Your task to perform on an android device: What's the weather going to be this weekend? Image 0: 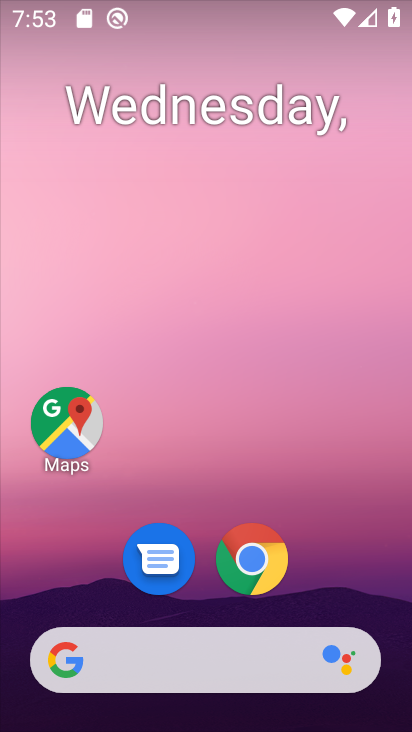
Step 0: drag from (377, 555) to (378, 174)
Your task to perform on an android device: What's the weather going to be this weekend? Image 1: 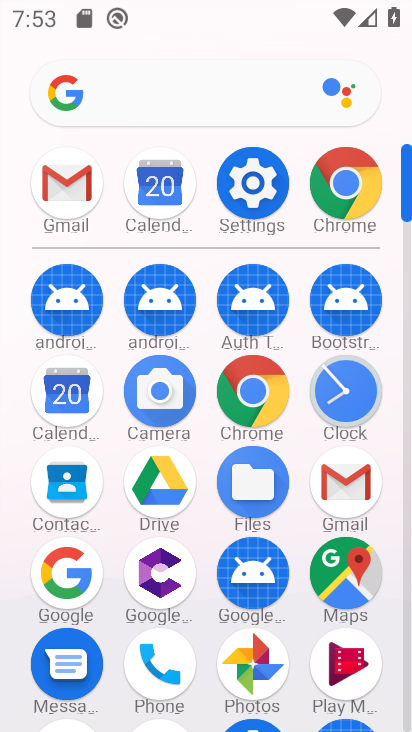
Step 1: click (270, 400)
Your task to perform on an android device: What's the weather going to be this weekend? Image 2: 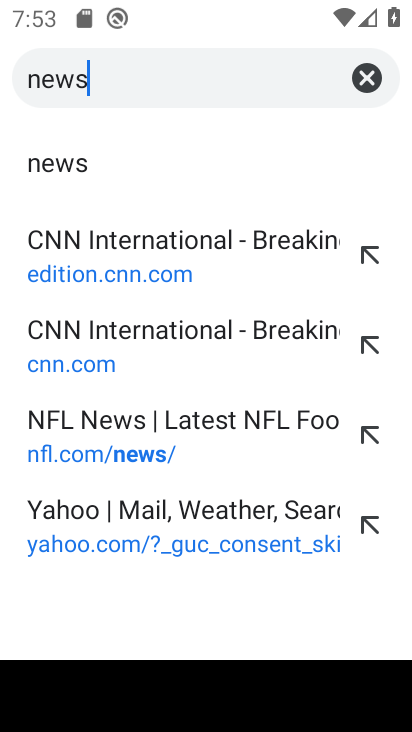
Step 2: click (367, 71)
Your task to perform on an android device: What's the weather going to be this weekend? Image 3: 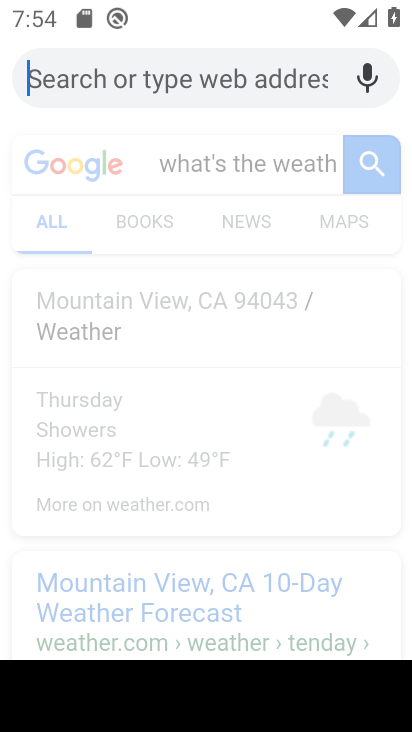
Step 3: type "what's the weather gong to be this weekend"
Your task to perform on an android device: What's the weather going to be this weekend? Image 4: 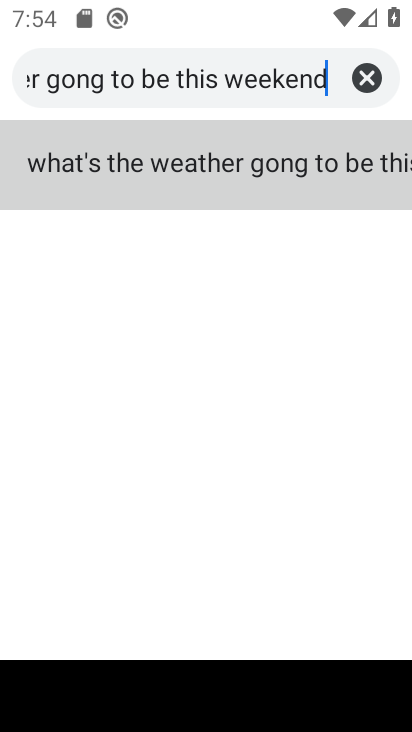
Step 4: click (232, 177)
Your task to perform on an android device: What's the weather going to be this weekend? Image 5: 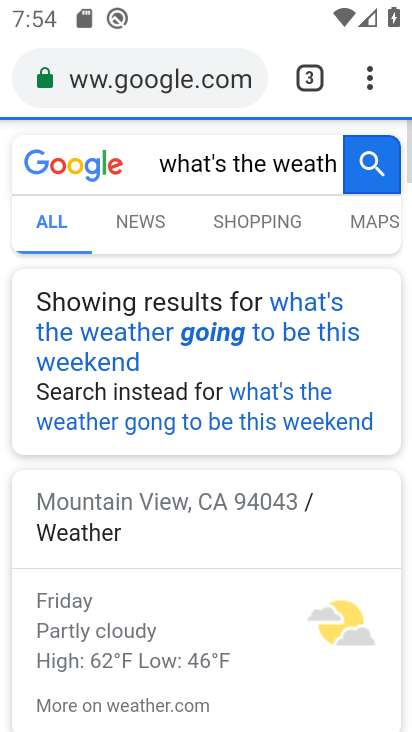
Step 5: click (235, 162)
Your task to perform on an android device: What's the weather going to be this weekend? Image 6: 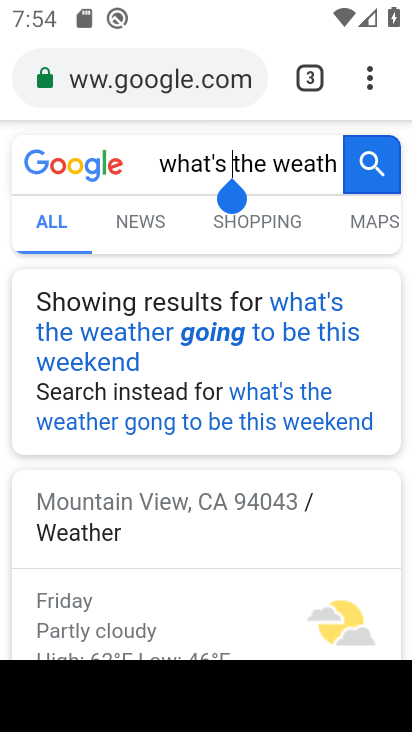
Step 6: drag from (227, 546) to (230, 235)
Your task to perform on an android device: What's the weather going to be this weekend? Image 7: 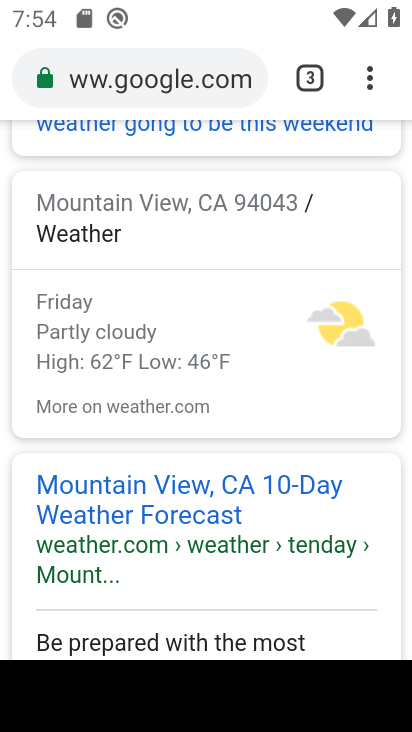
Step 7: click (199, 477)
Your task to perform on an android device: What's the weather going to be this weekend? Image 8: 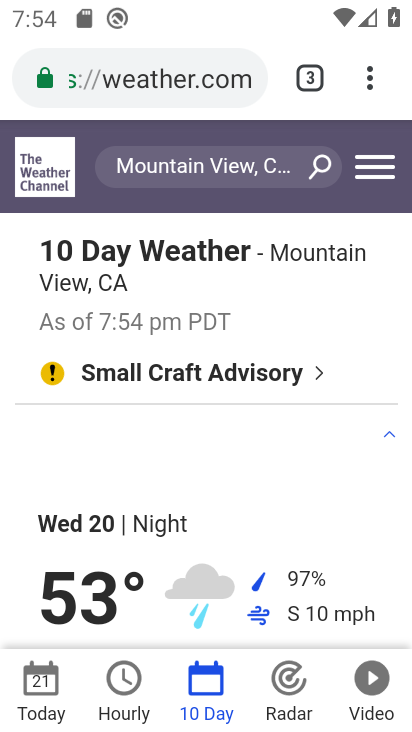
Step 8: task complete